Your task to perform on an android device: Open eBay Image 0: 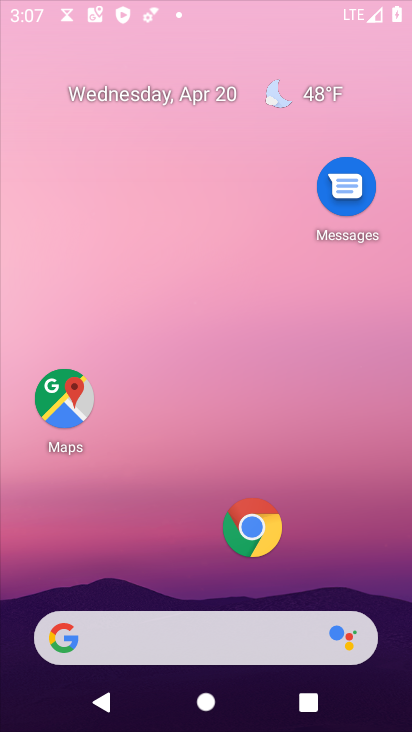
Step 0: drag from (154, 634) to (334, 17)
Your task to perform on an android device: Open eBay Image 1: 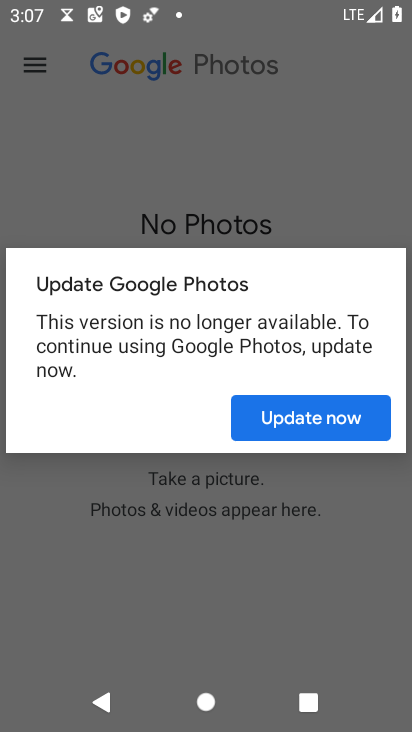
Step 1: press home button
Your task to perform on an android device: Open eBay Image 2: 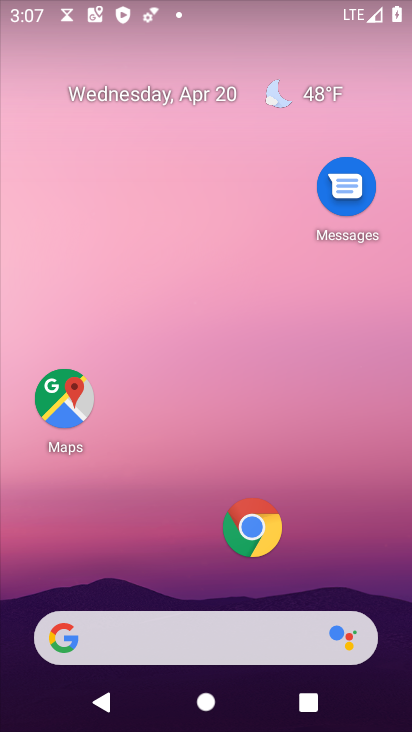
Step 2: drag from (169, 643) to (367, 15)
Your task to perform on an android device: Open eBay Image 3: 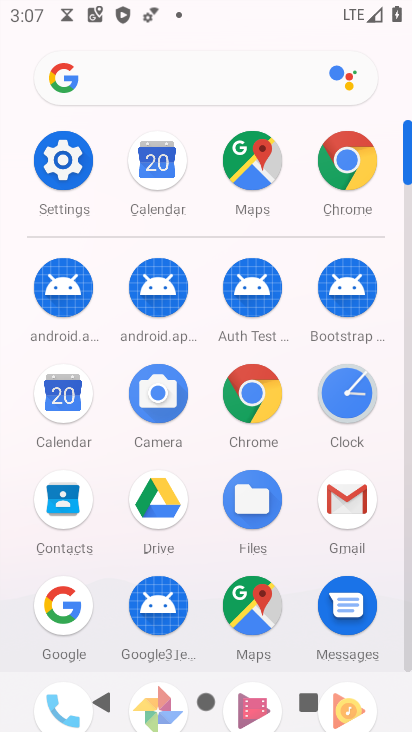
Step 3: click (353, 174)
Your task to perform on an android device: Open eBay Image 4: 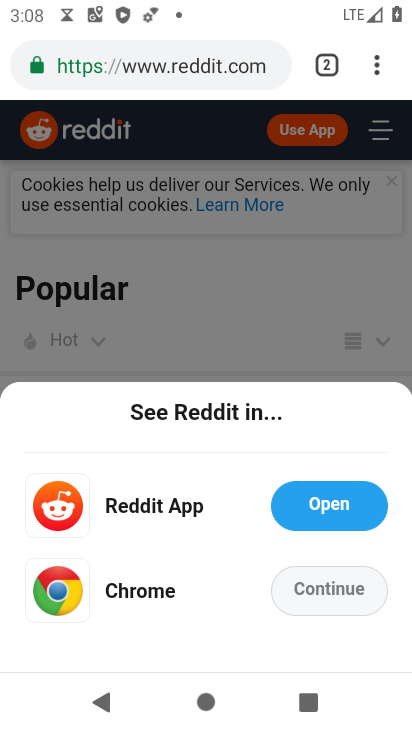
Step 4: click (375, 73)
Your task to perform on an android device: Open eBay Image 5: 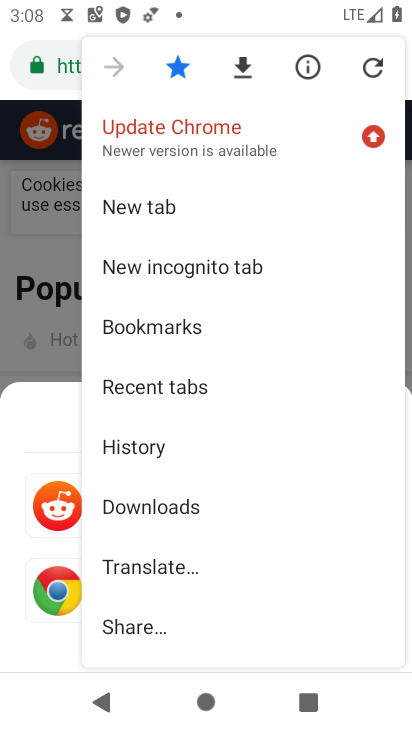
Step 5: click (153, 205)
Your task to perform on an android device: Open eBay Image 6: 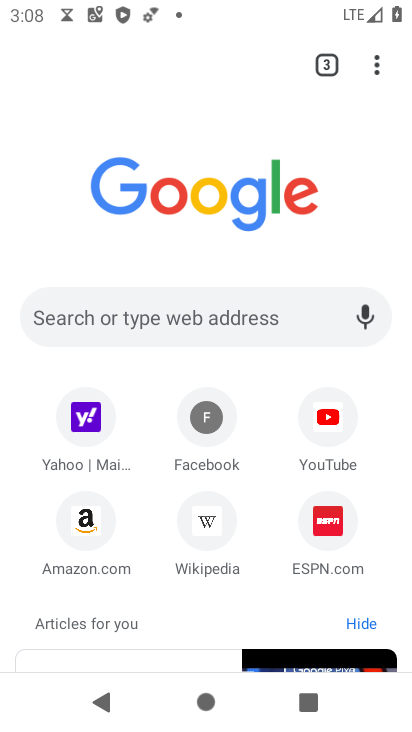
Step 6: click (115, 310)
Your task to perform on an android device: Open eBay Image 7: 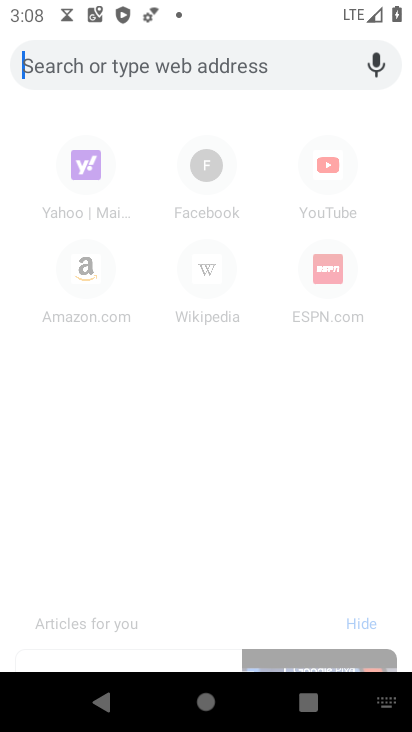
Step 7: type "ebay"
Your task to perform on an android device: Open eBay Image 8: 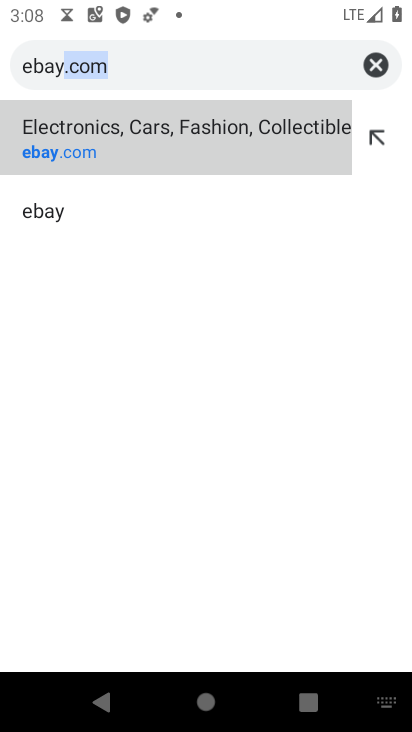
Step 8: click (28, 207)
Your task to perform on an android device: Open eBay Image 9: 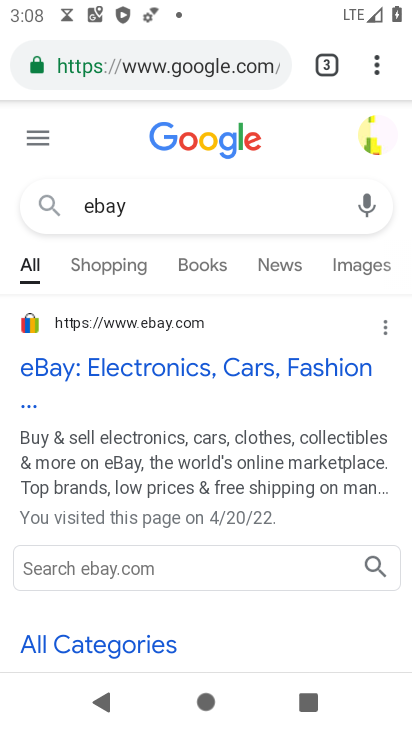
Step 9: click (99, 372)
Your task to perform on an android device: Open eBay Image 10: 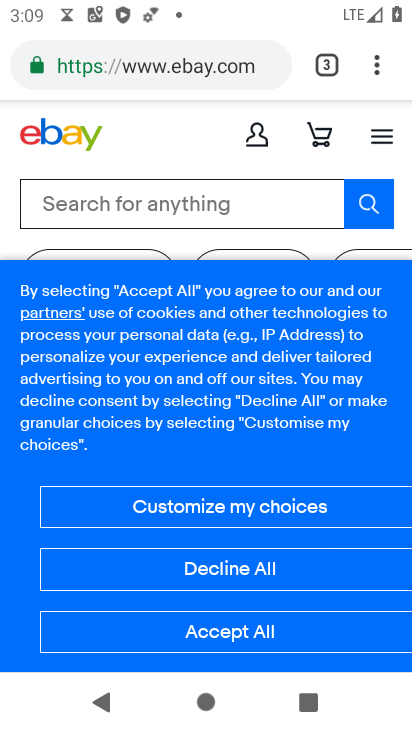
Step 10: task complete